Your task to perform on an android device: Do I have any events tomorrow? Image 0: 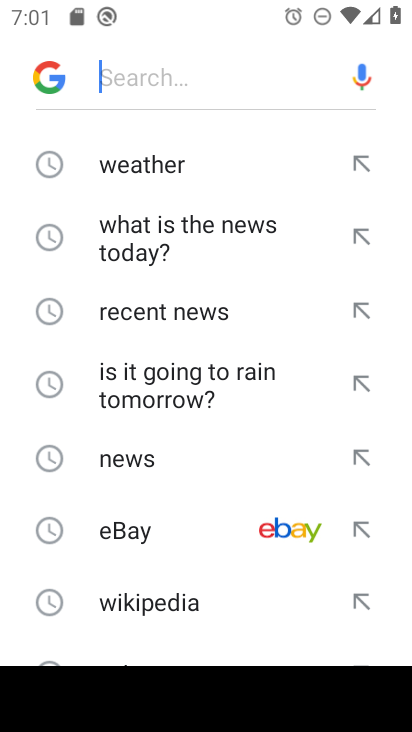
Step 0: press home button
Your task to perform on an android device: Do I have any events tomorrow? Image 1: 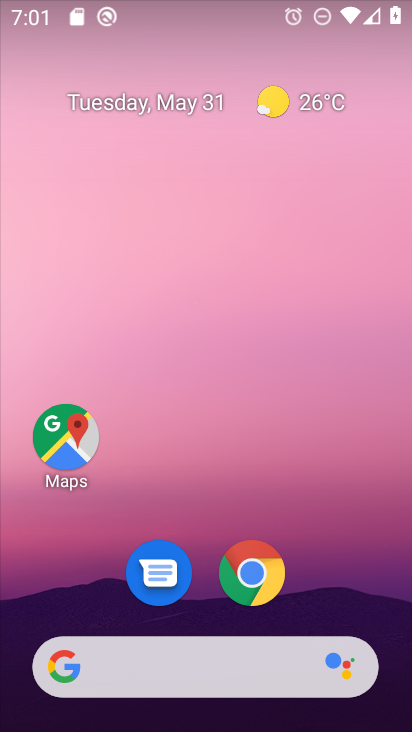
Step 1: drag from (397, 644) to (247, 32)
Your task to perform on an android device: Do I have any events tomorrow? Image 2: 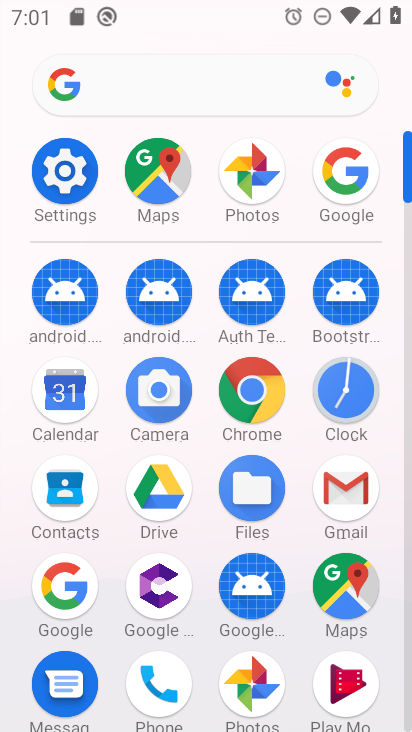
Step 2: click (67, 414)
Your task to perform on an android device: Do I have any events tomorrow? Image 3: 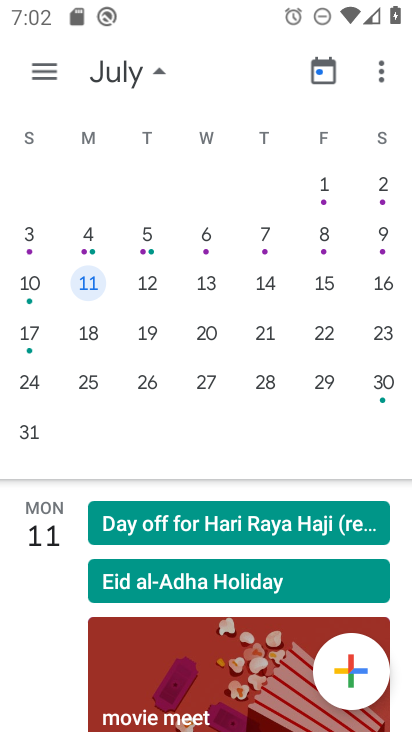
Step 3: click (385, 189)
Your task to perform on an android device: Do I have any events tomorrow? Image 4: 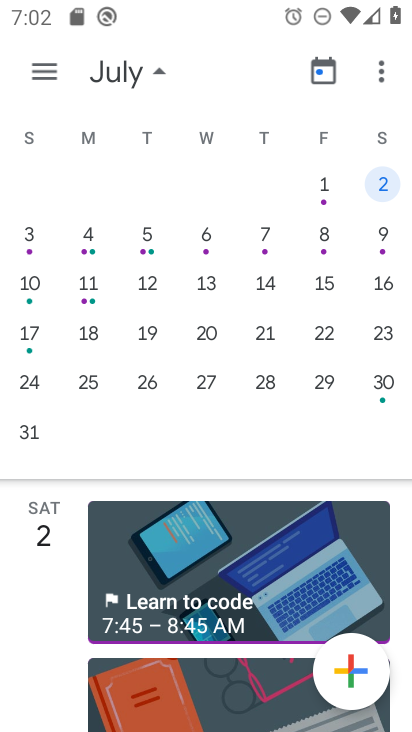
Step 4: click (54, 61)
Your task to perform on an android device: Do I have any events tomorrow? Image 5: 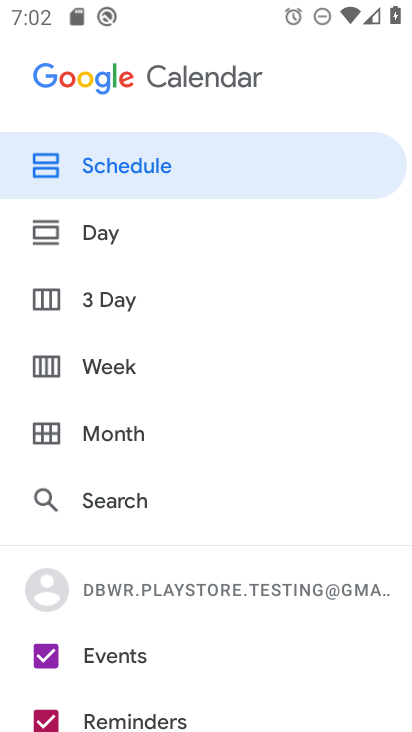
Step 5: task complete